Your task to perform on an android device: check storage Image 0: 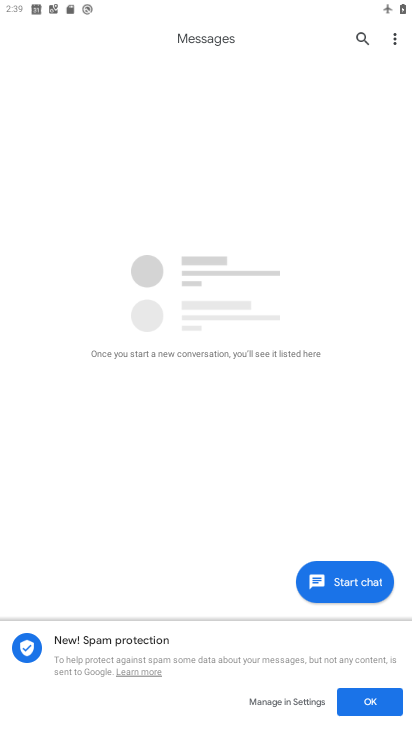
Step 0: press home button
Your task to perform on an android device: check storage Image 1: 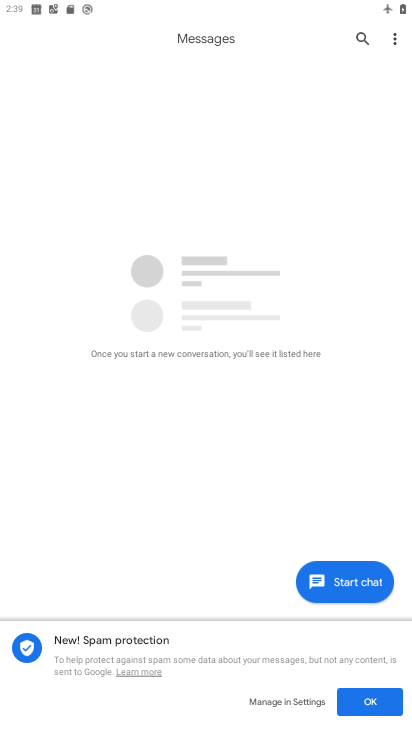
Step 1: press home button
Your task to perform on an android device: check storage Image 2: 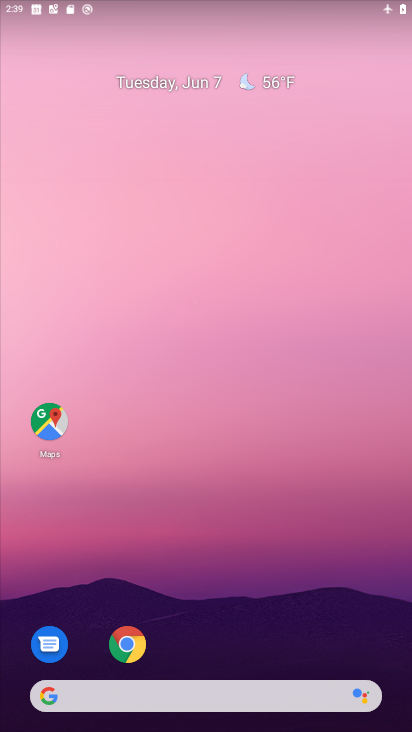
Step 2: drag from (226, 646) to (240, 559)
Your task to perform on an android device: check storage Image 3: 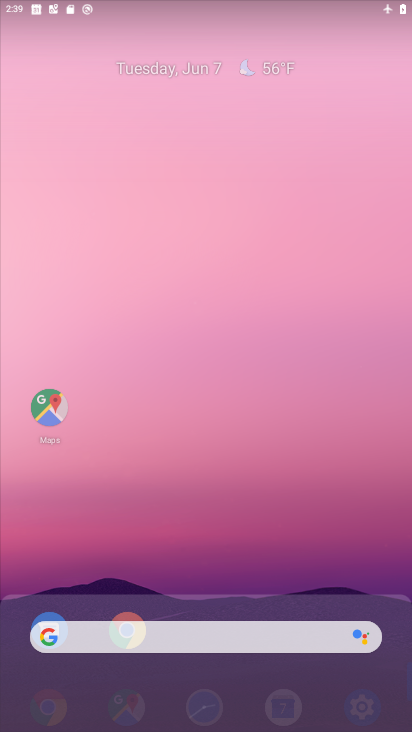
Step 3: drag from (270, 214) to (275, 60)
Your task to perform on an android device: check storage Image 4: 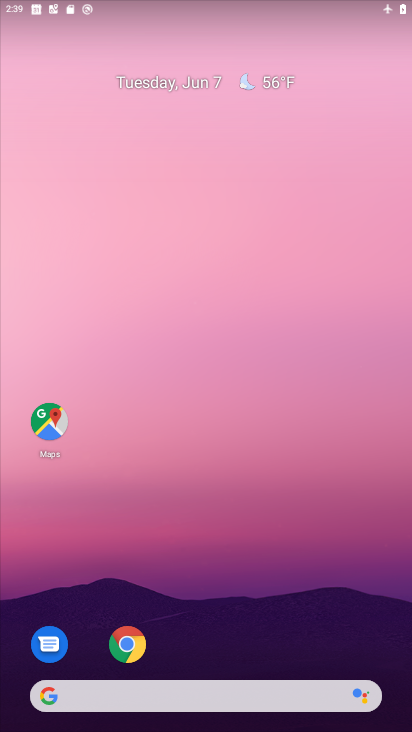
Step 4: drag from (220, 664) to (227, 533)
Your task to perform on an android device: check storage Image 5: 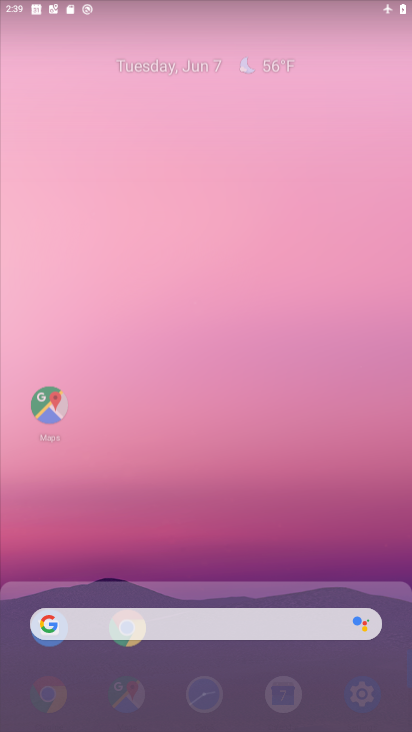
Step 5: drag from (237, 160) to (239, 51)
Your task to perform on an android device: check storage Image 6: 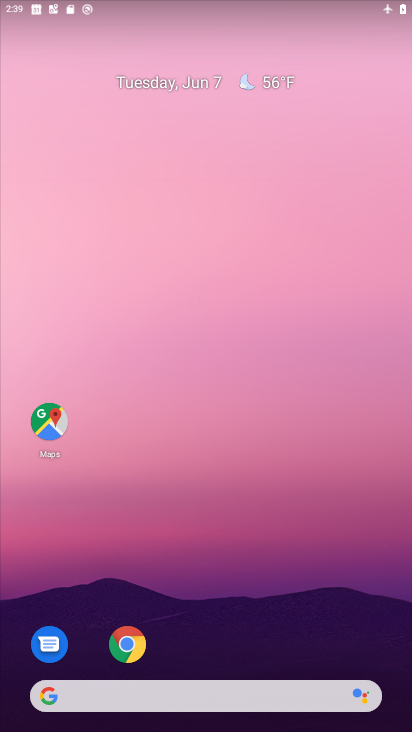
Step 6: drag from (218, 657) to (240, 456)
Your task to perform on an android device: check storage Image 7: 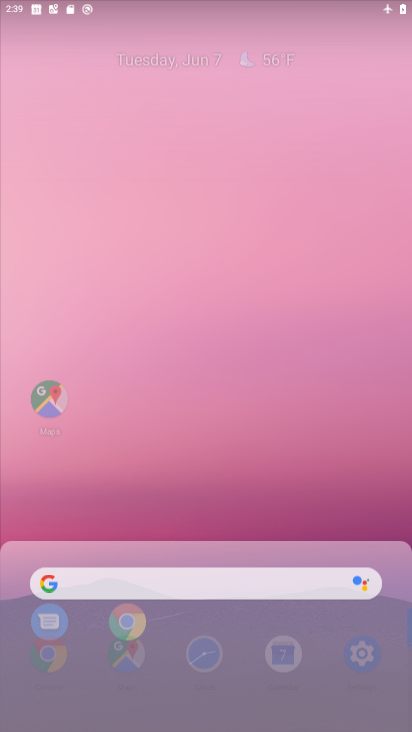
Step 7: click (274, 140)
Your task to perform on an android device: check storage Image 8: 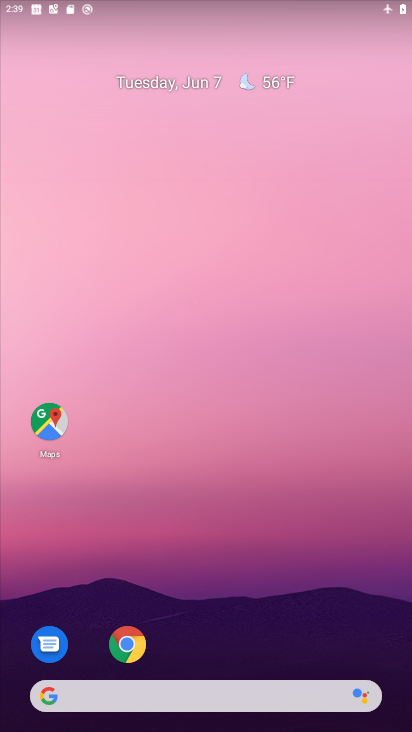
Step 8: drag from (232, 674) to (234, 134)
Your task to perform on an android device: check storage Image 9: 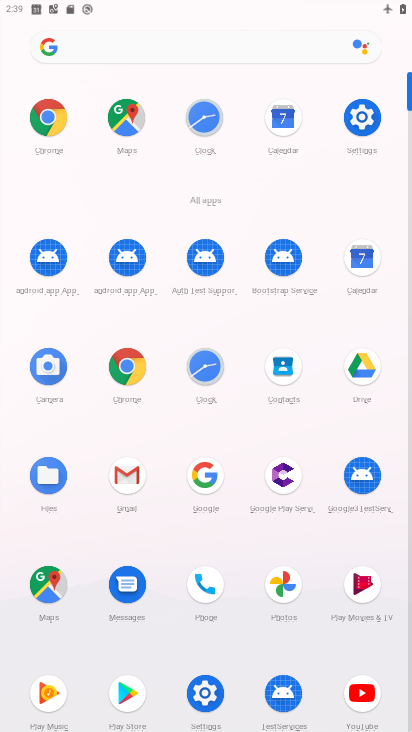
Step 9: click (360, 113)
Your task to perform on an android device: check storage Image 10: 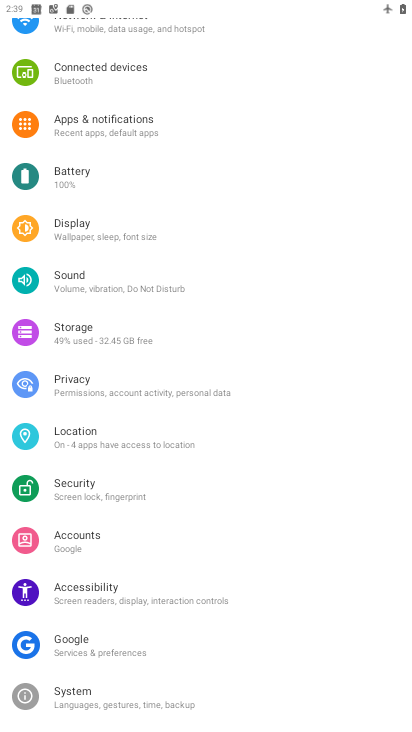
Step 10: click (107, 325)
Your task to perform on an android device: check storage Image 11: 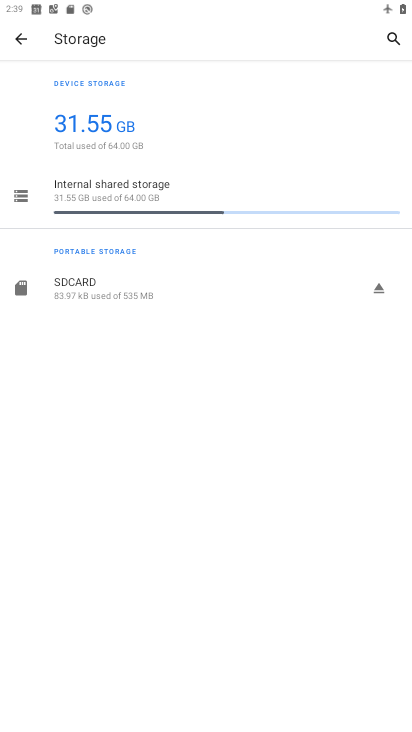
Step 11: task complete